Your task to perform on an android device: Show me recent news Image 0: 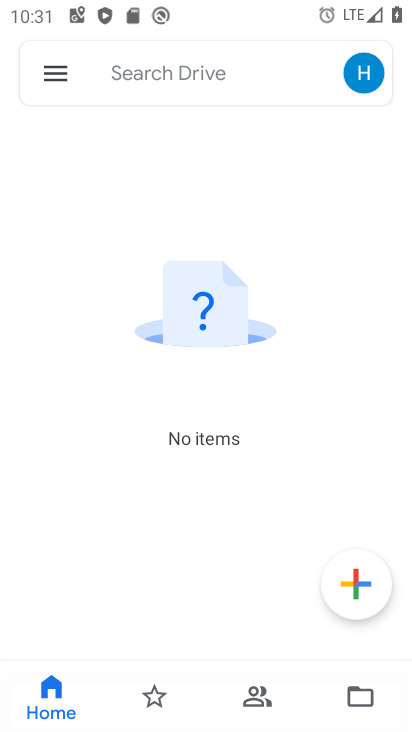
Step 0: press home button
Your task to perform on an android device: Show me recent news Image 1: 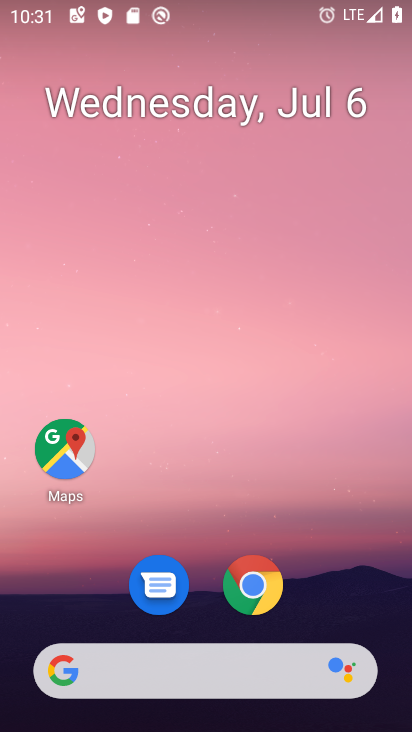
Step 1: click (242, 675)
Your task to perform on an android device: Show me recent news Image 2: 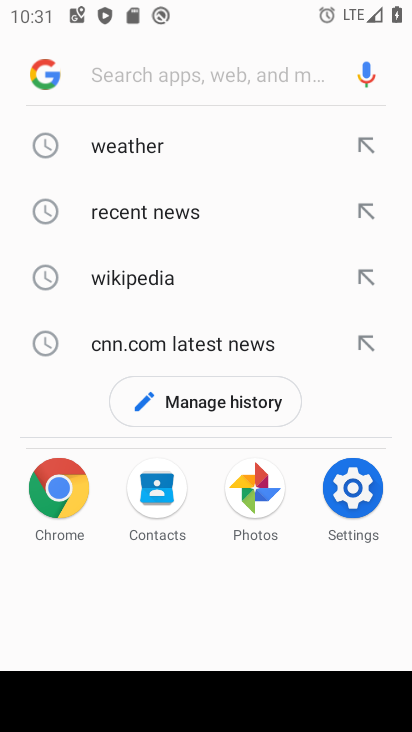
Step 2: click (154, 204)
Your task to perform on an android device: Show me recent news Image 3: 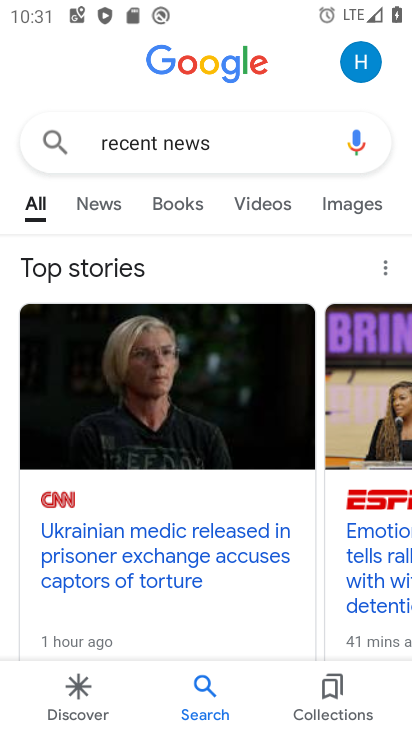
Step 3: click (104, 194)
Your task to perform on an android device: Show me recent news Image 4: 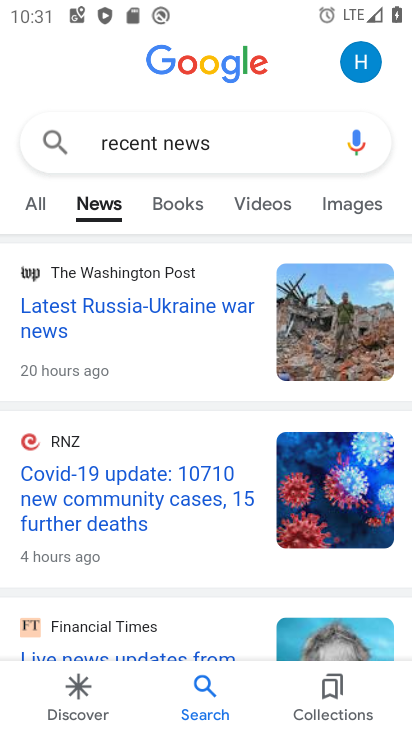
Step 4: task complete